Your task to perform on an android device: Play the last video I watched on Youtube Image 0: 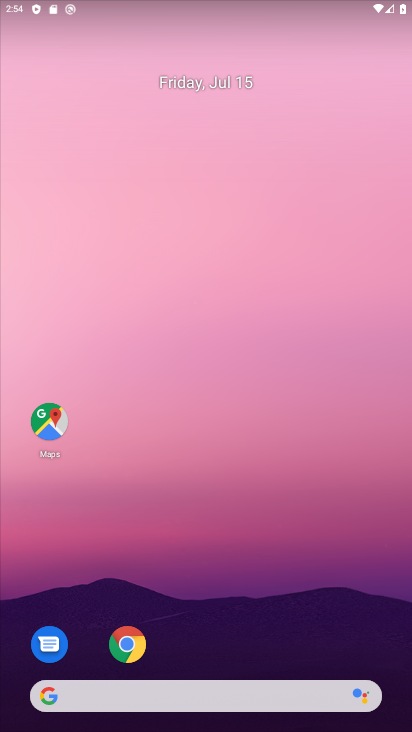
Step 0: drag from (203, 655) to (278, 105)
Your task to perform on an android device: Play the last video I watched on Youtube Image 1: 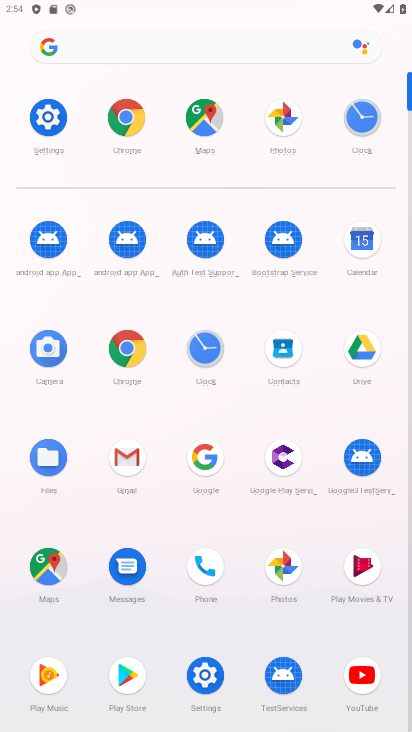
Step 1: click (364, 668)
Your task to perform on an android device: Play the last video I watched on Youtube Image 2: 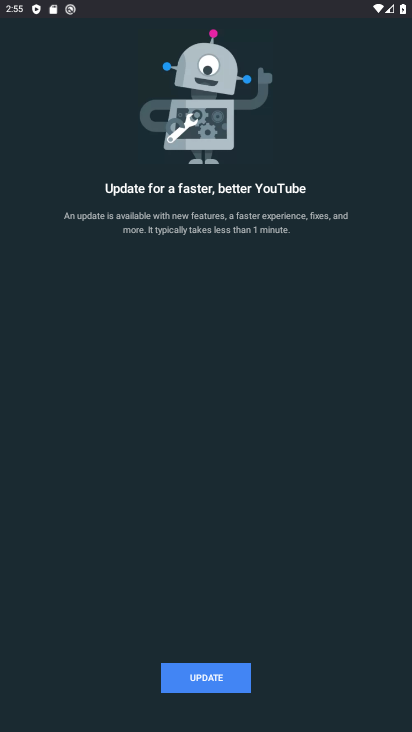
Step 2: task complete